Your task to perform on an android device: visit the assistant section in the google photos Image 0: 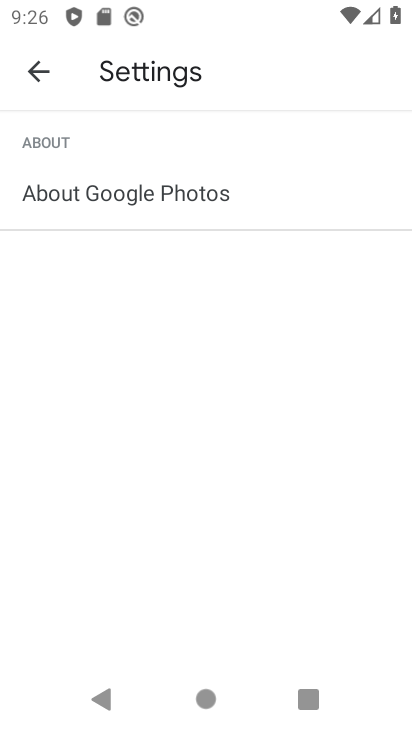
Step 0: press home button
Your task to perform on an android device: visit the assistant section in the google photos Image 1: 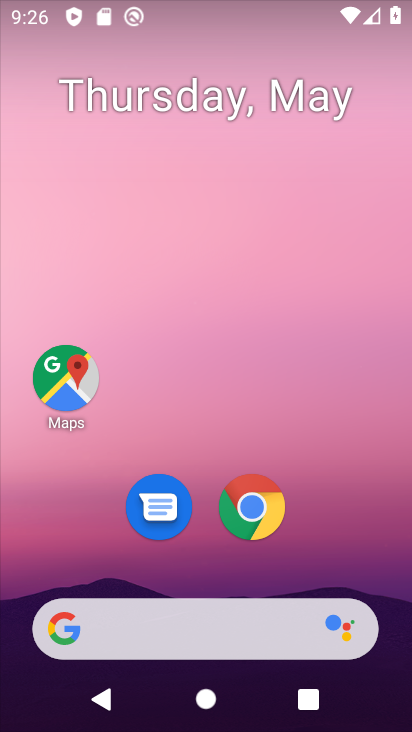
Step 1: drag from (345, 545) to (321, 146)
Your task to perform on an android device: visit the assistant section in the google photos Image 2: 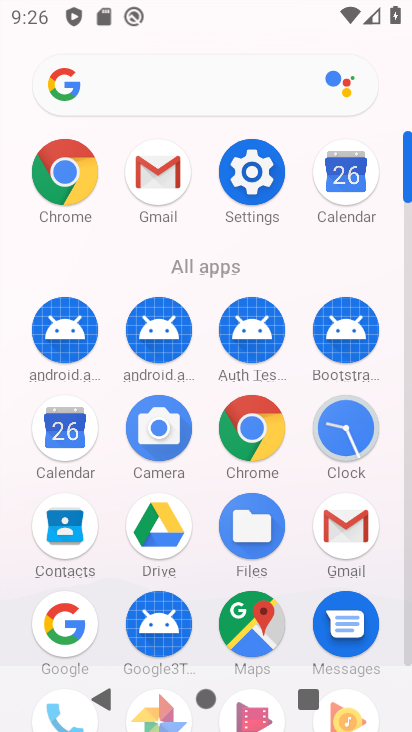
Step 2: click (407, 652)
Your task to perform on an android device: visit the assistant section in the google photos Image 3: 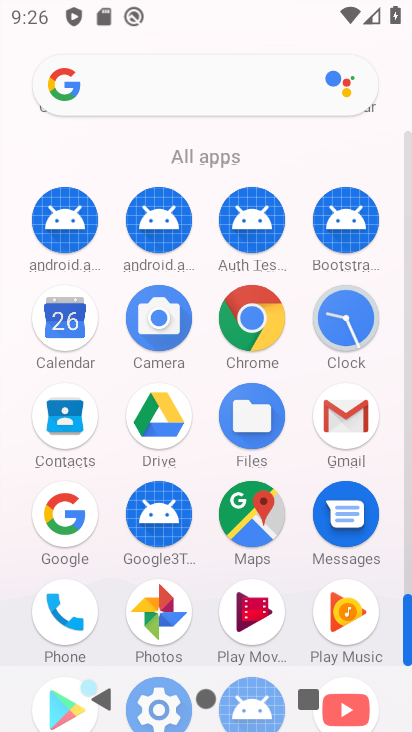
Step 3: click (166, 626)
Your task to perform on an android device: visit the assistant section in the google photos Image 4: 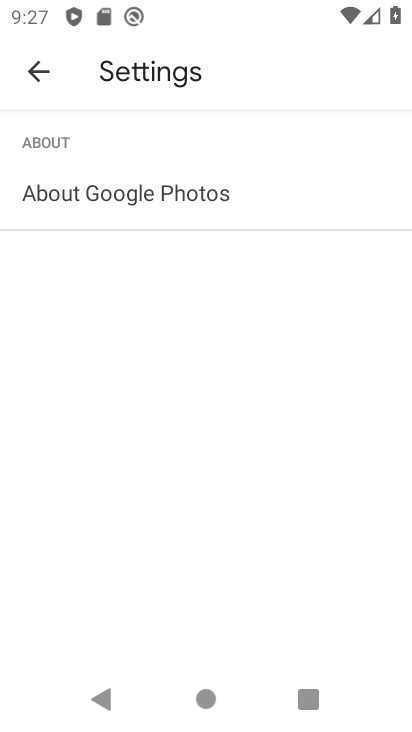
Step 4: click (57, 68)
Your task to perform on an android device: visit the assistant section in the google photos Image 5: 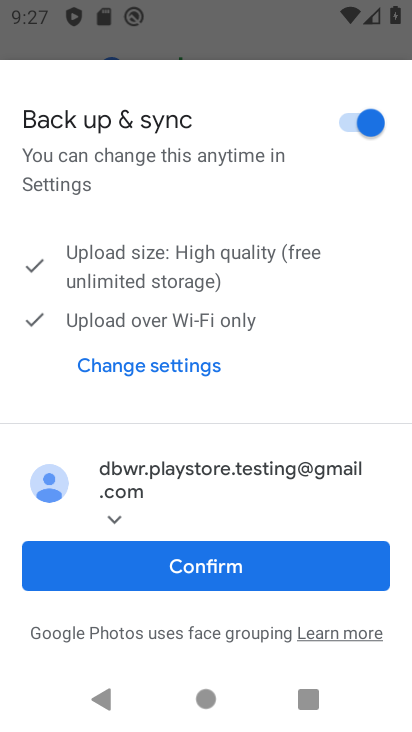
Step 5: click (220, 564)
Your task to perform on an android device: visit the assistant section in the google photos Image 6: 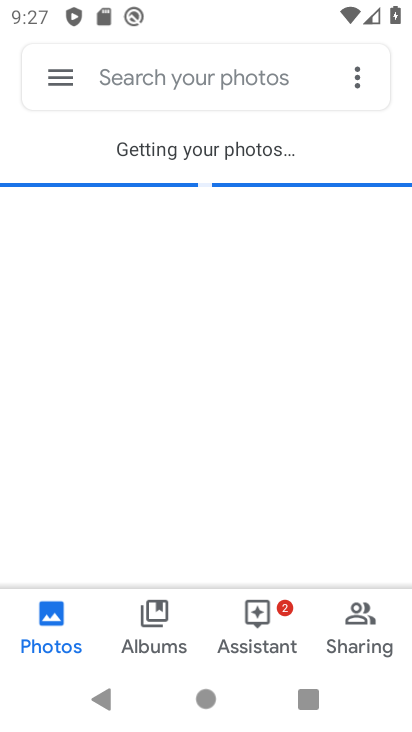
Step 6: click (255, 623)
Your task to perform on an android device: visit the assistant section in the google photos Image 7: 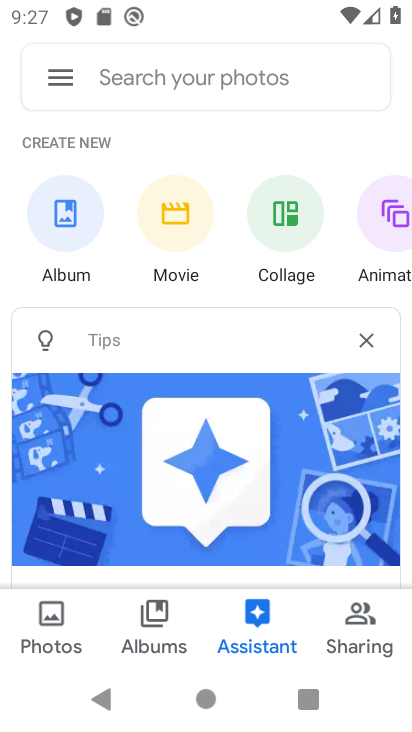
Step 7: task complete